Your task to perform on an android device: toggle notification dots Image 0: 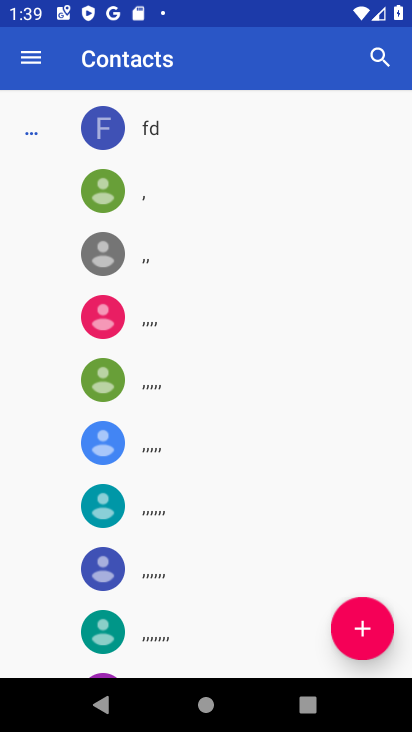
Step 0: press home button
Your task to perform on an android device: toggle notification dots Image 1: 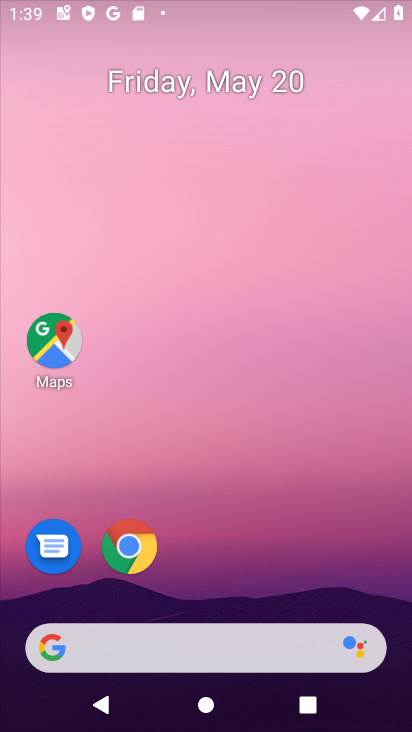
Step 1: drag from (309, 605) to (239, 0)
Your task to perform on an android device: toggle notification dots Image 2: 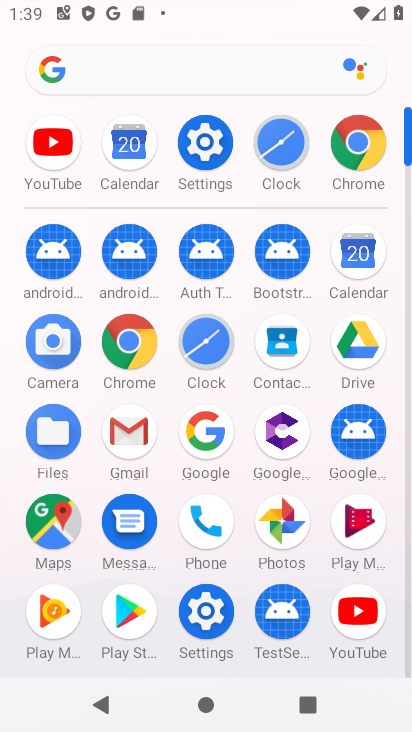
Step 2: click (192, 143)
Your task to perform on an android device: toggle notification dots Image 3: 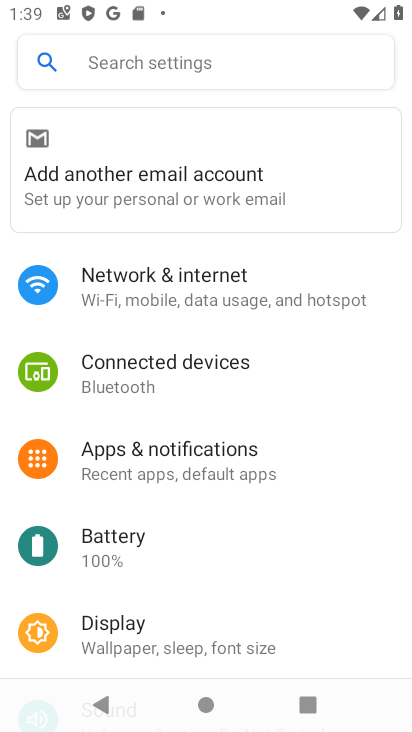
Step 3: click (192, 478)
Your task to perform on an android device: toggle notification dots Image 4: 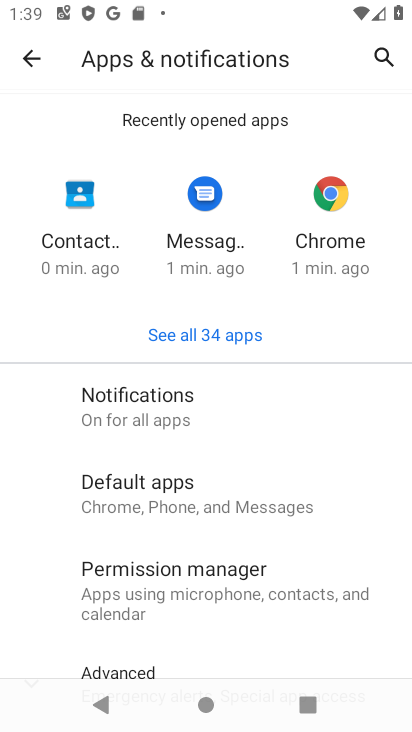
Step 4: drag from (148, 636) to (196, 154)
Your task to perform on an android device: toggle notification dots Image 5: 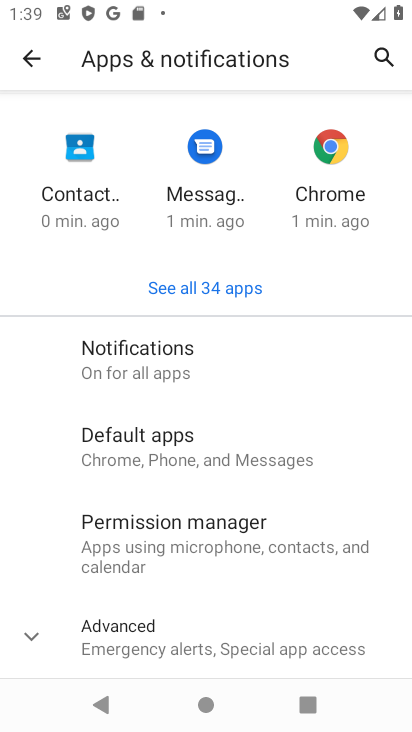
Step 5: click (183, 368)
Your task to perform on an android device: toggle notification dots Image 6: 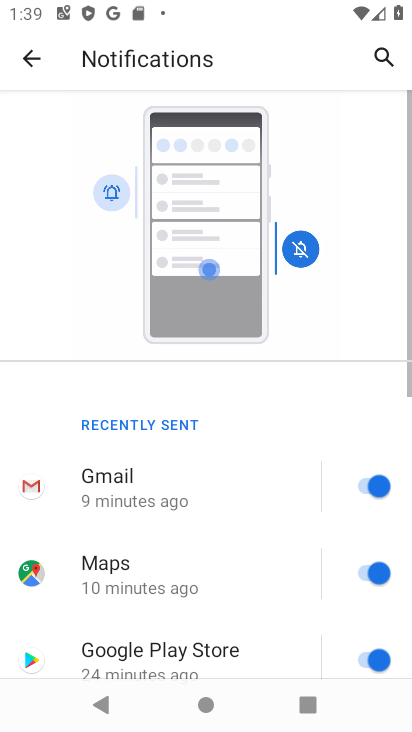
Step 6: drag from (259, 221) to (282, 57)
Your task to perform on an android device: toggle notification dots Image 7: 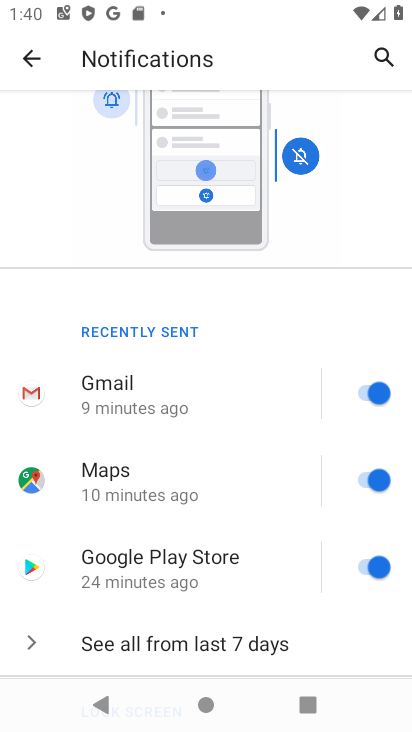
Step 7: drag from (254, 600) to (281, 106)
Your task to perform on an android device: toggle notification dots Image 8: 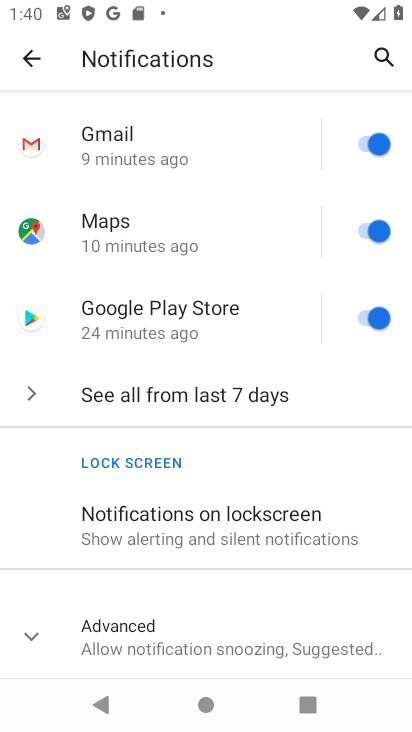
Step 8: click (235, 646)
Your task to perform on an android device: toggle notification dots Image 9: 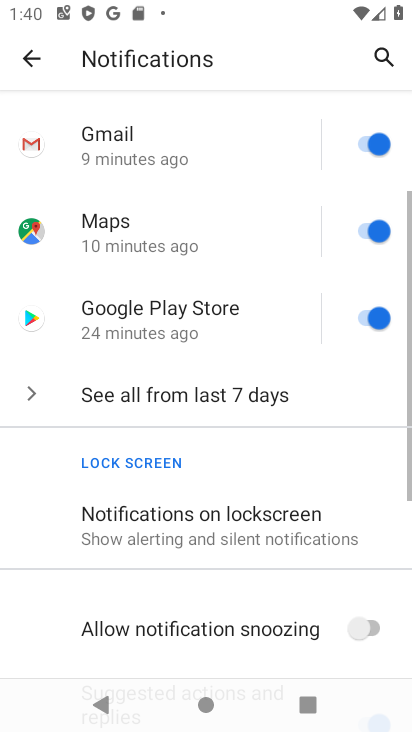
Step 9: drag from (236, 627) to (272, 128)
Your task to perform on an android device: toggle notification dots Image 10: 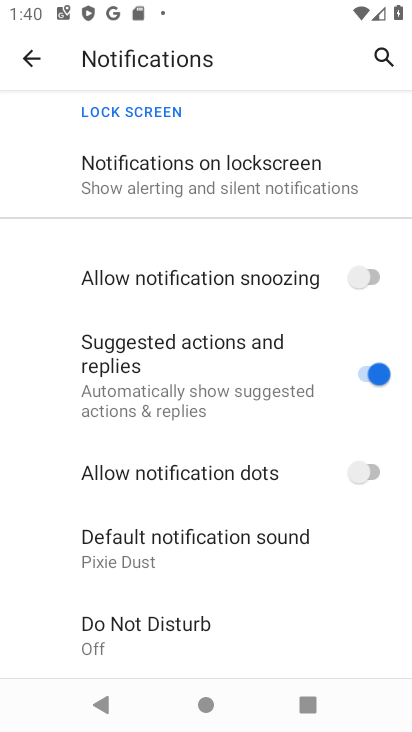
Step 10: click (374, 468)
Your task to perform on an android device: toggle notification dots Image 11: 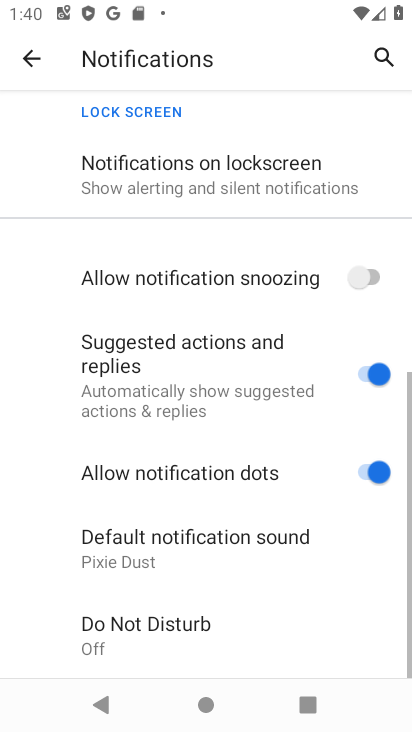
Step 11: task complete